Your task to perform on an android device: Go to internet settings Image 0: 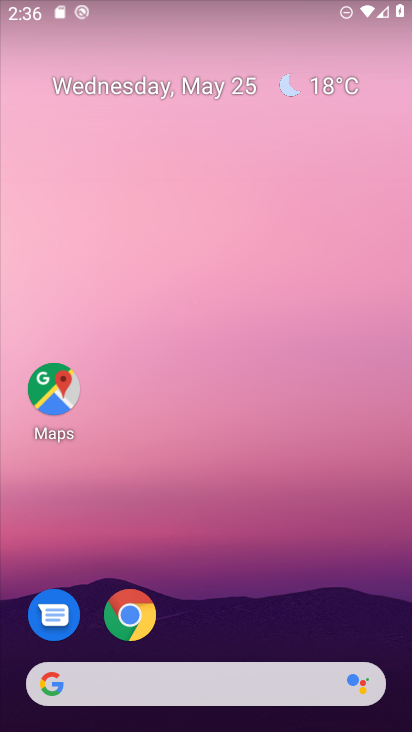
Step 0: drag from (254, 597) to (300, 7)
Your task to perform on an android device: Go to internet settings Image 1: 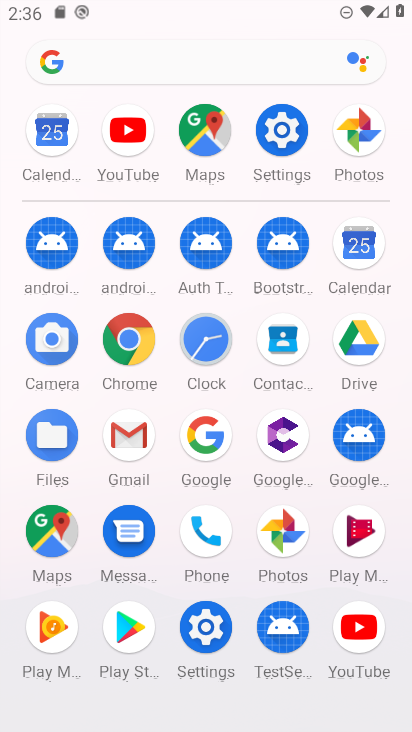
Step 1: click (267, 125)
Your task to perform on an android device: Go to internet settings Image 2: 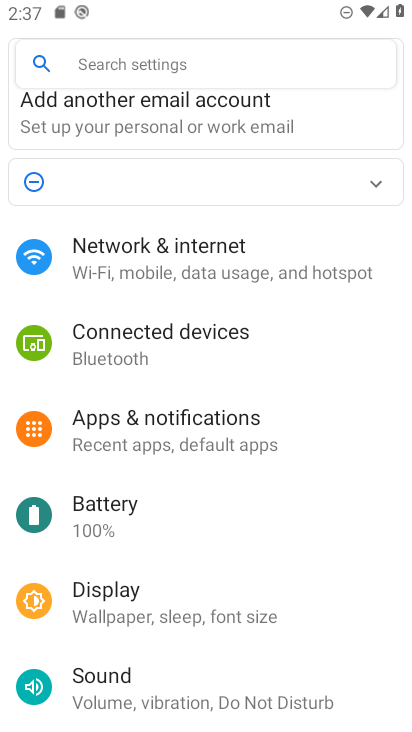
Step 2: click (193, 258)
Your task to perform on an android device: Go to internet settings Image 3: 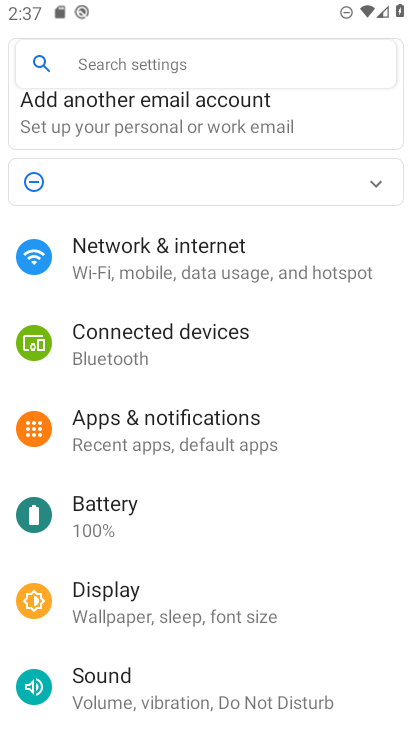
Step 3: click (193, 249)
Your task to perform on an android device: Go to internet settings Image 4: 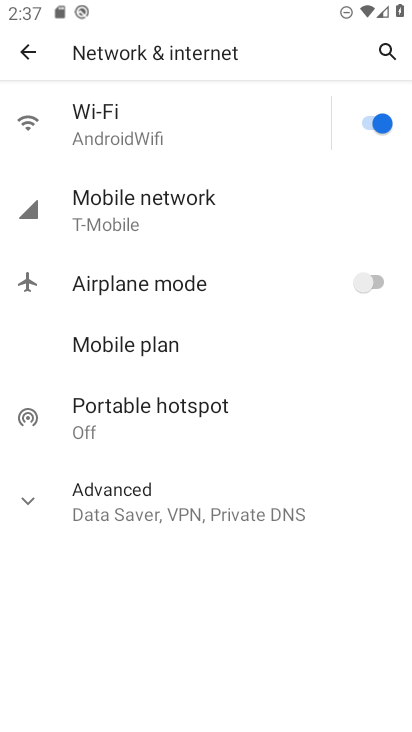
Step 4: task complete